Your task to perform on an android device: Open ESPN.com Image 0: 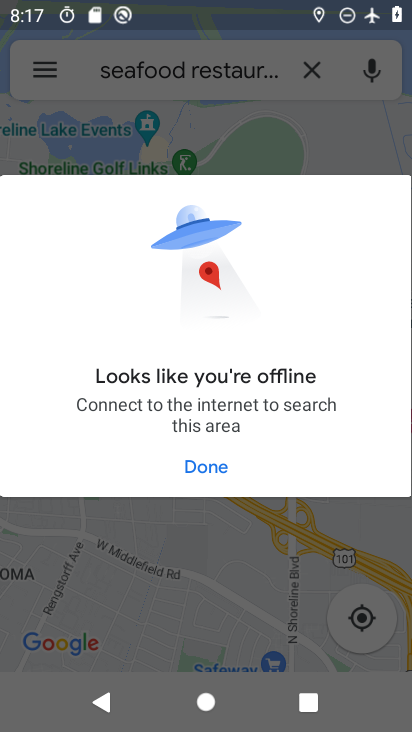
Step 0: press home button
Your task to perform on an android device: Open ESPN.com Image 1: 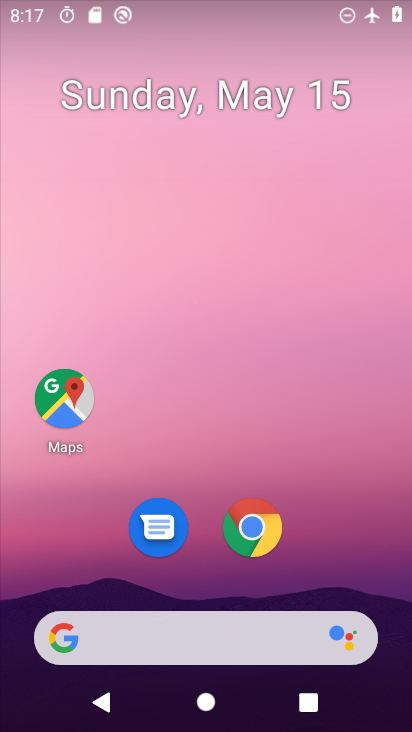
Step 1: click (256, 527)
Your task to perform on an android device: Open ESPN.com Image 2: 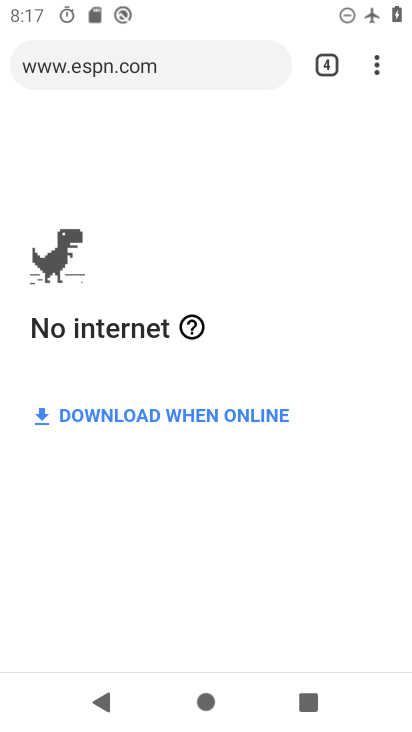
Step 2: click (324, 74)
Your task to perform on an android device: Open ESPN.com Image 3: 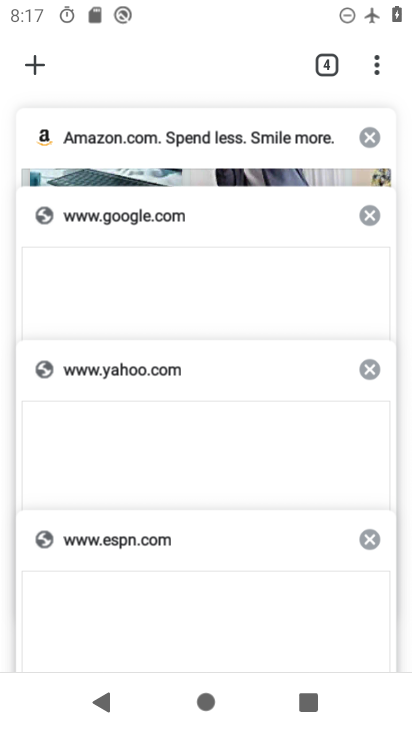
Step 3: task complete